Your task to perform on an android device: Open settings on Google Maps Image 0: 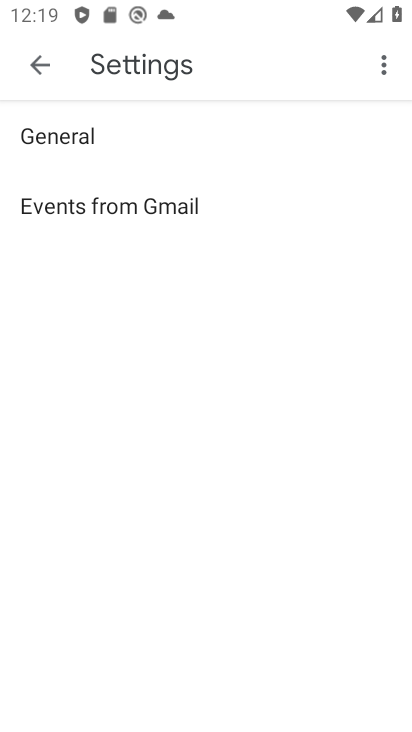
Step 0: press home button
Your task to perform on an android device: Open settings on Google Maps Image 1: 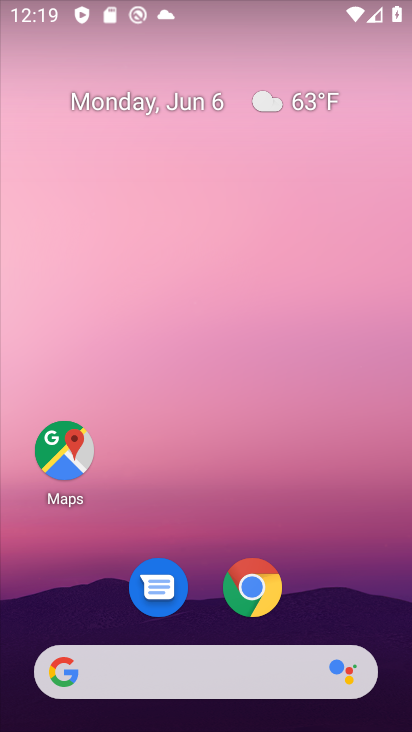
Step 1: click (74, 440)
Your task to perform on an android device: Open settings on Google Maps Image 2: 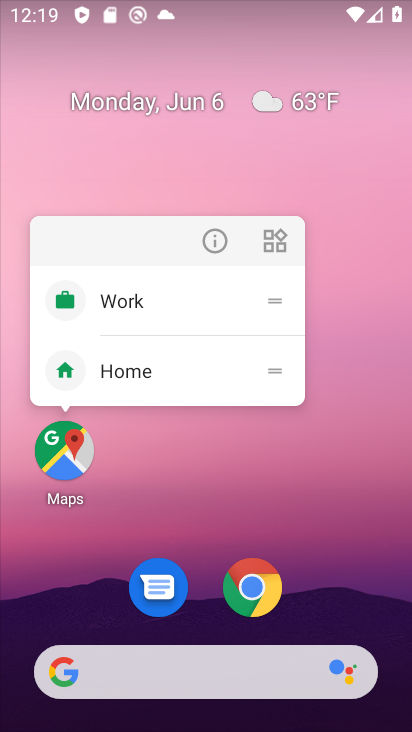
Step 2: click (74, 440)
Your task to perform on an android device: Open settings on Google Maps Image 3: 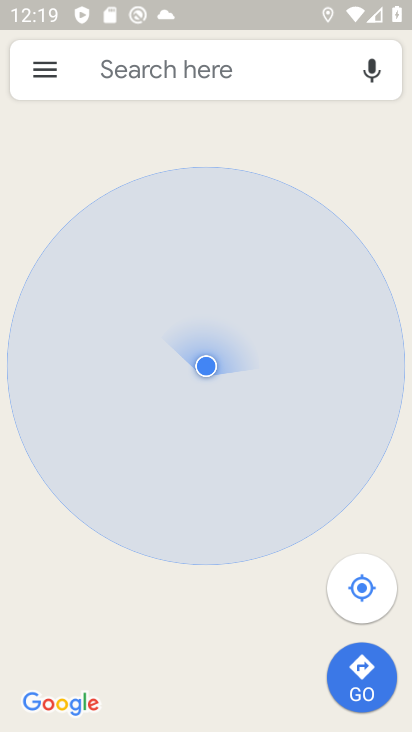
Step 3: click (54, 71)
Your task to perform on an android device: Open settings on Google Maps Image 4: 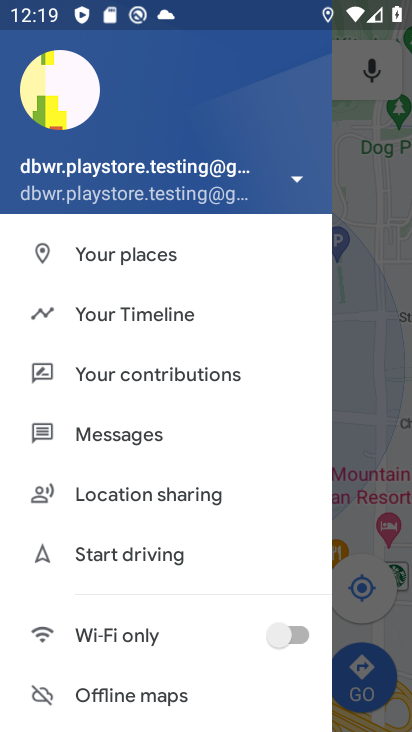
Step 4: drag from (171, 658) to (168, 99)
Your task to perform on an android device: Open settings on Google Maps Image 5: 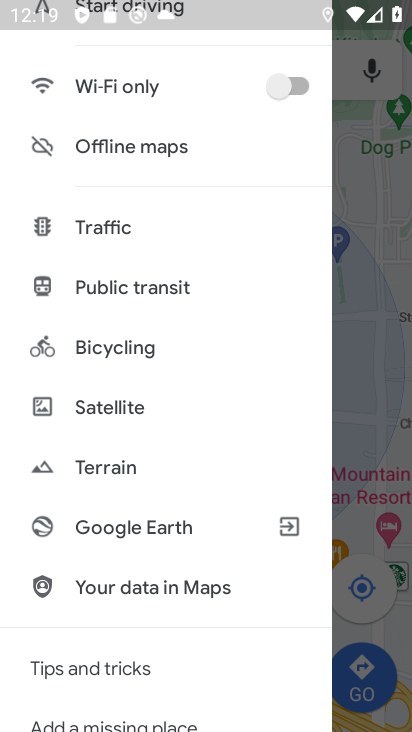
Step 5: drag from (189, 670) to (170, 208)
Your task to perform on an android device: Open settings on Google Maps Image 6: 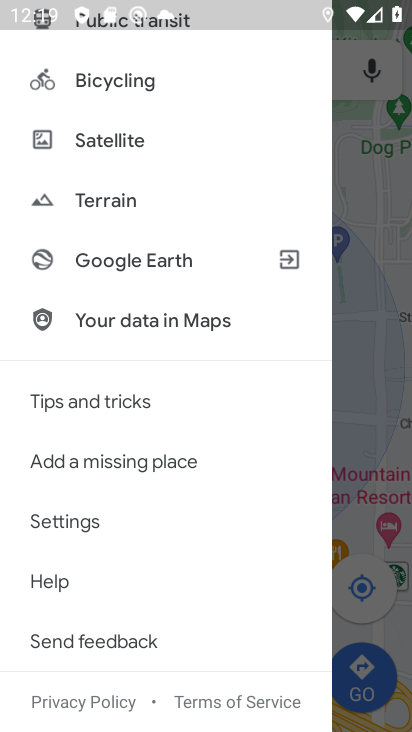
Step 6: click (92, 528)
Your task to perform on an android device: Open settings on Google Maps Image 7: 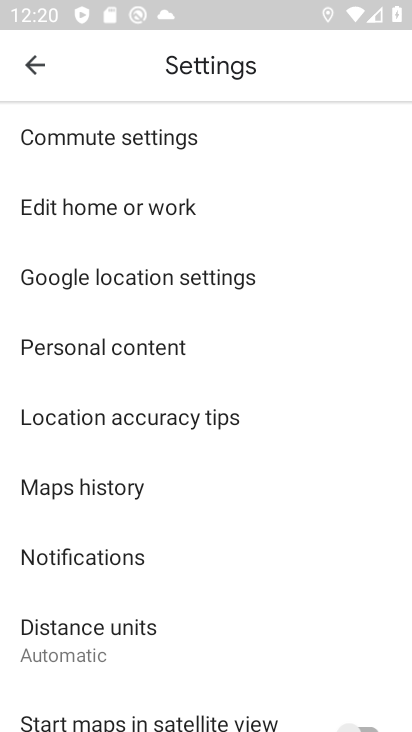
Step 7: task complete